Your task to perform on an android device: turn off javascript in the chrome app Image 0: 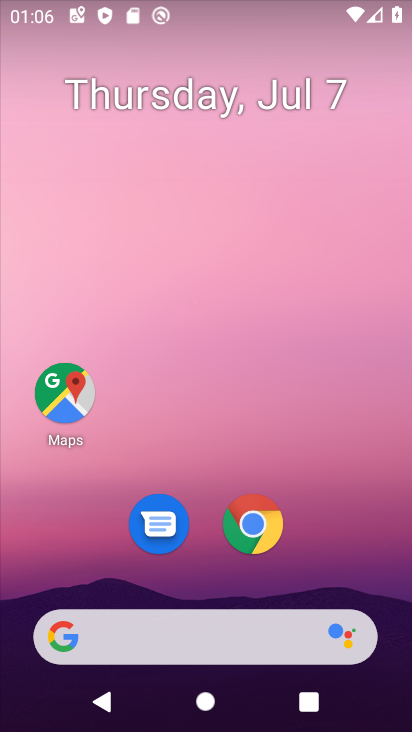
Step 0: drag from (241, 452) to (297, 1)
Your task to perform on an android device: turn off javascript in the chrome app Image 1: 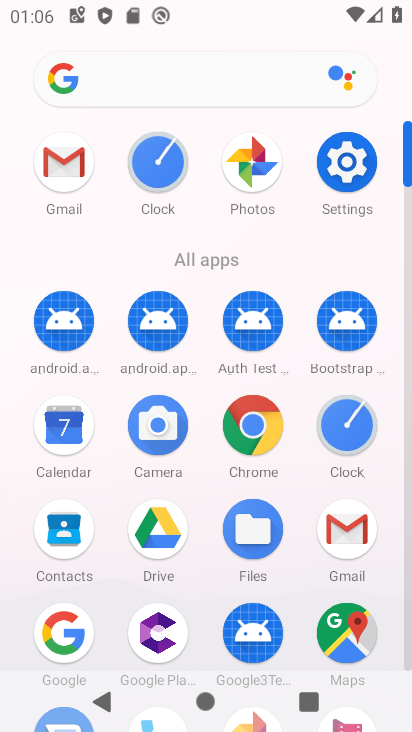
Step 1: click (248, 443)
Your task to perform on an android device: turn off javascript in the chrome app Image 2: 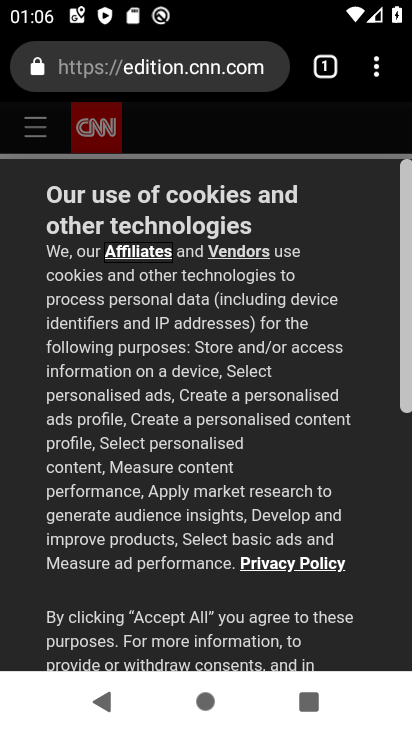
Step 2: click (383, 76)
Your task to perform on an android device: turn off javascript in the chrome app Image 3: 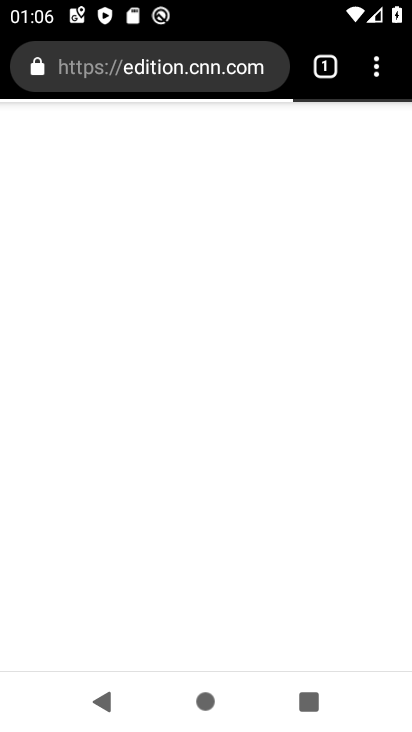
Step 3: click (375, 78)
Your task to perform on an android device: turn off javascript in the chrome app Image 4: 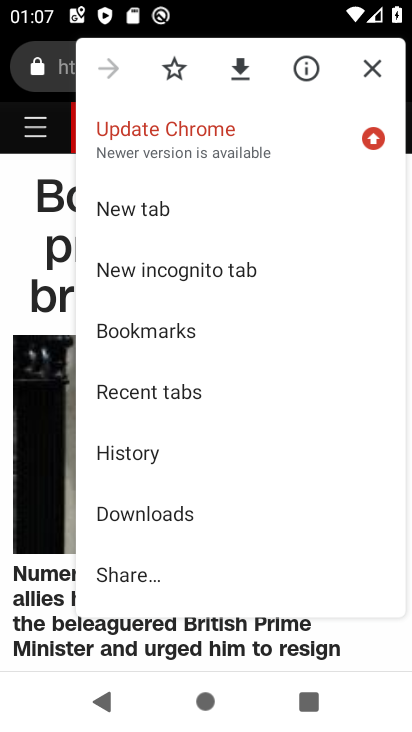
Step 4: drag from (262, 461) to (258, 85)
Your task to perform on an android device: turn off javascript in the chrome app Image 5: 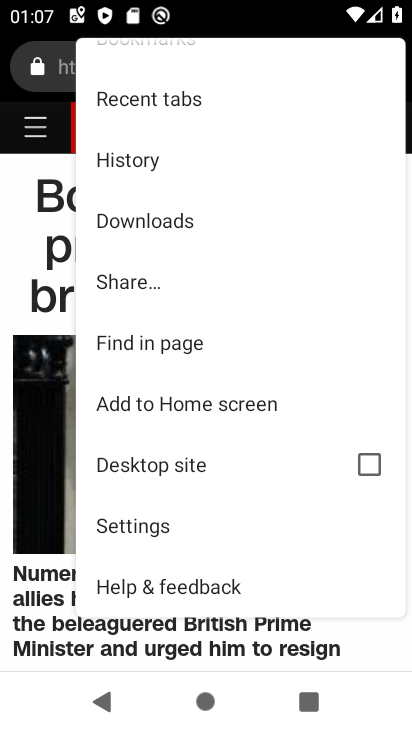
Step 5: click (215, 521)
Your task to perform on an android device: turn off javascript in the chrome app Image 6: 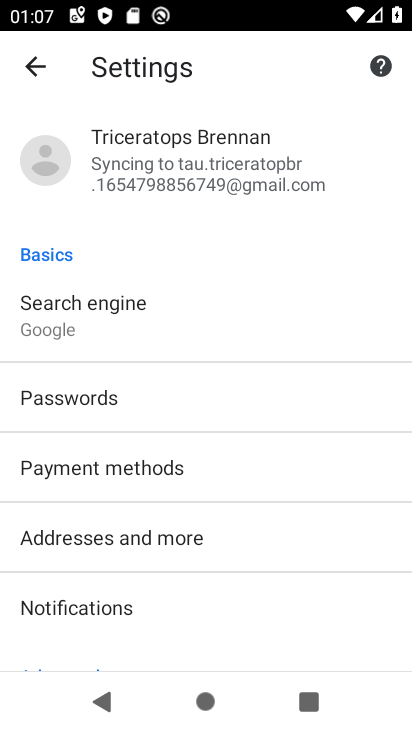
Step 6: drag from (282, 539) to (265, 216)
Your task to perform on an android device: turn off javascript in the chrome app Image 7: 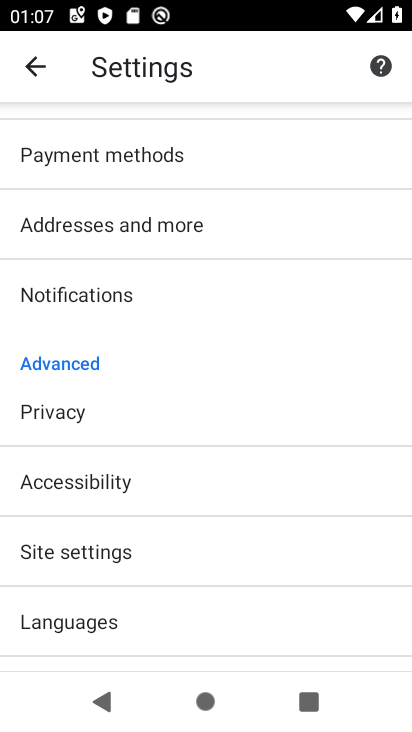
Step 7: click (131, 555)
Your task to perform on an android device: turn off javascript in the chrome app Image 8: 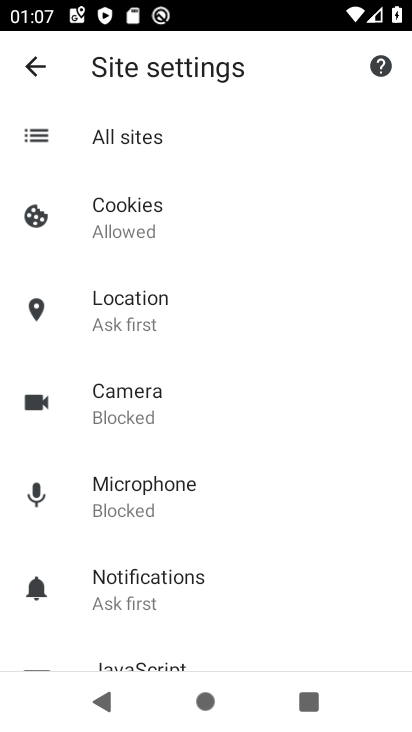
Step 8: drag from (242, 438) to (247, 187)
Your task to perform on an android device: turn off javascript in the chrome app Image 9: 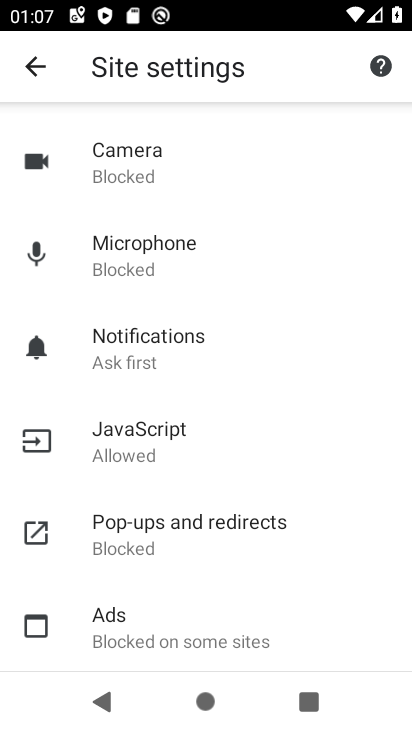
Step 9: click (177, 438)
Your task to perform on an android device: turn off javascript in the chrome app Image 10: 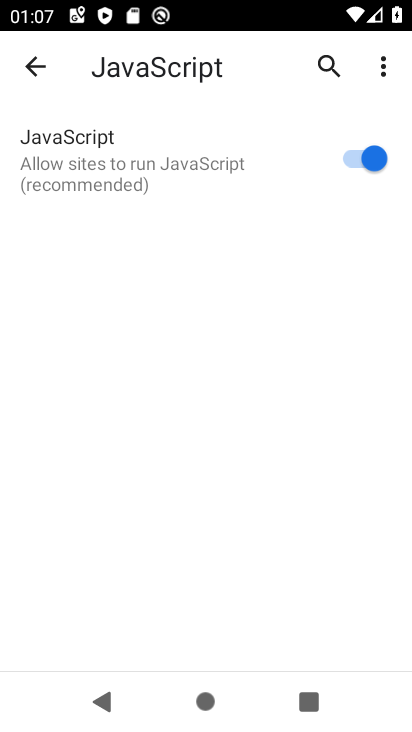
Step 10: click (365, 156)
Your task to perform on an android device: turn off javascript in the chrome app Image 11: 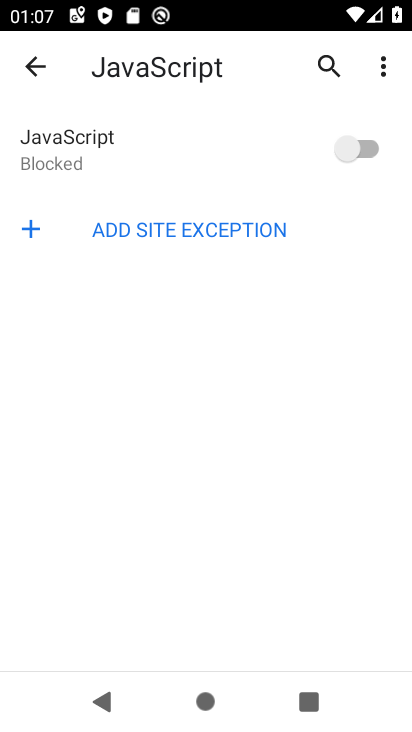
Step 11: task complete